Your task to perform on an android device: Open the stopwatch Image 0: 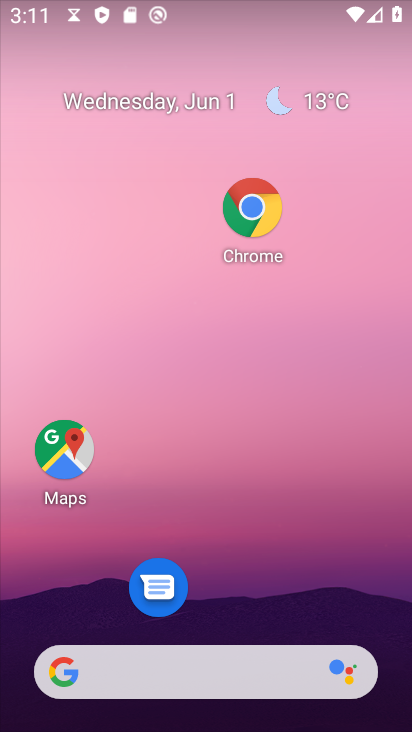
Step 0: drag from (254, 699) to (204, 243)
Your task to perform on an android device: Open the stopwatch Image 1: 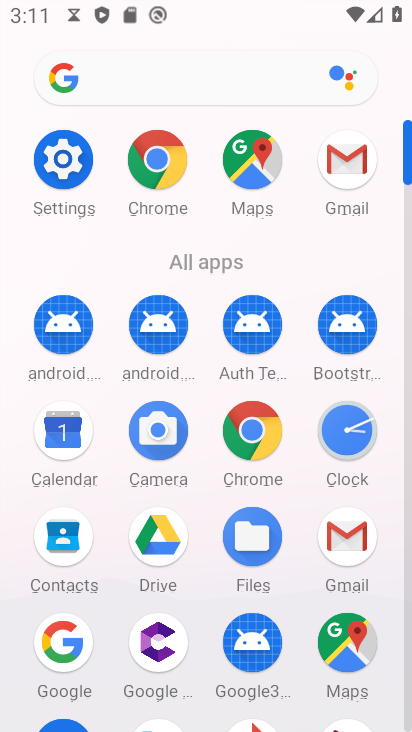
Step 1: click (353, 426)
Your task to perform on an android device: Open the stopwatch Image 2: 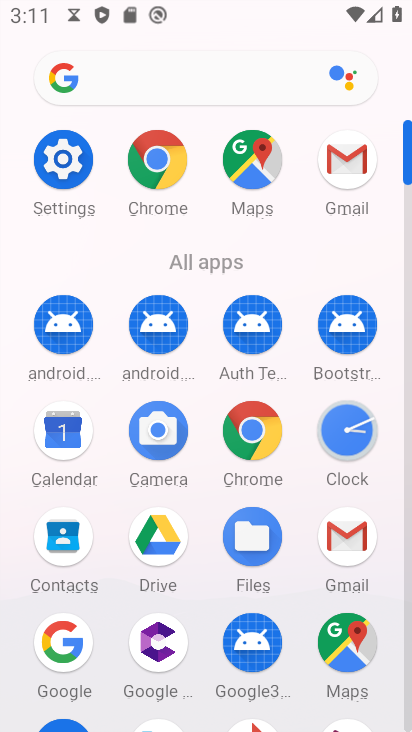
Step 2: click (352, 427)
Your task to perform on an android device: Open the stopwatch Image 3: 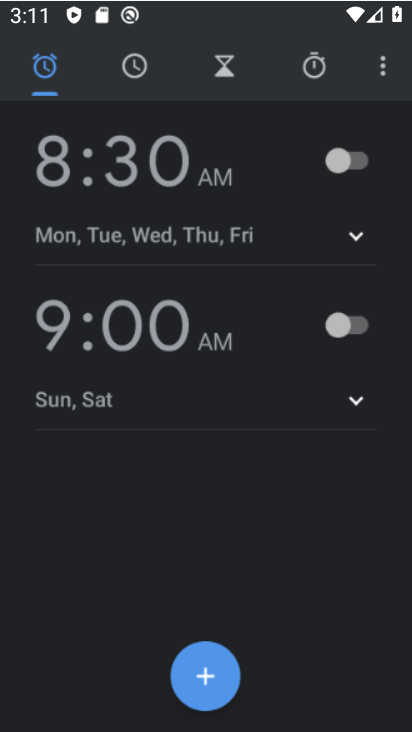
Step 3: click (352, 427)
Your task to perform on an android device: Open the stopwatch Image 4: 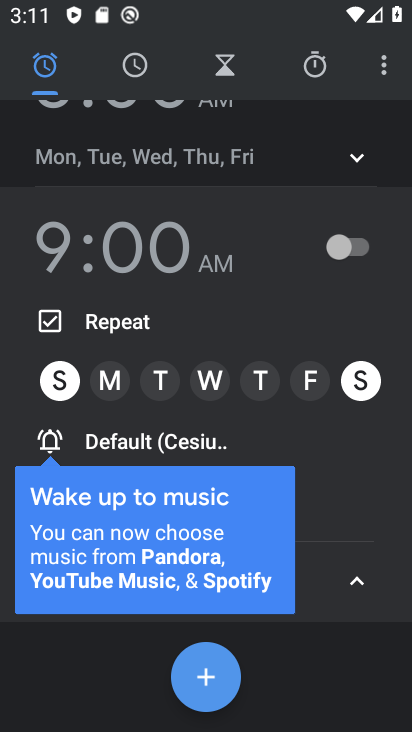
Step 4: click (319, 66)
Your task to perform on an android device: Open the stopwatch Image 5: 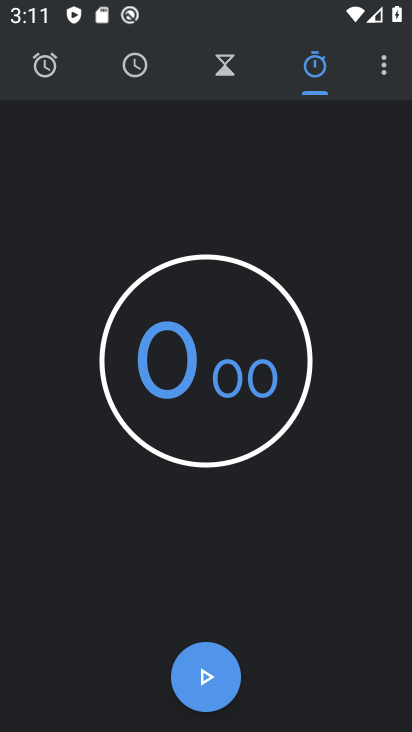
Step 5: click (198, 677)
Your task to perform on an android device: Open the stopwatch Image 6: 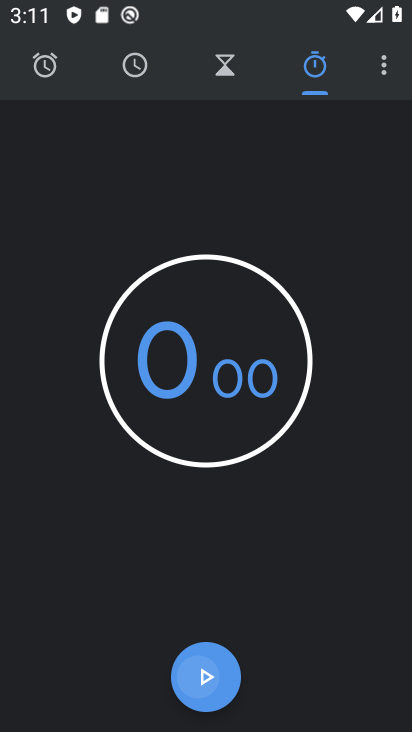
Step 6: click (198, 677)
Your task to perform on an android device: Open the stopwatch Image 7: 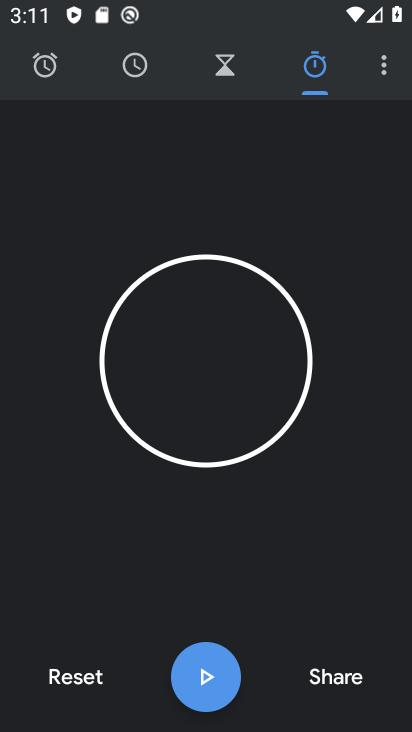
Step 7: click (198, 677)
Your task to perform on an android device: Open the stopwatch Image 8: 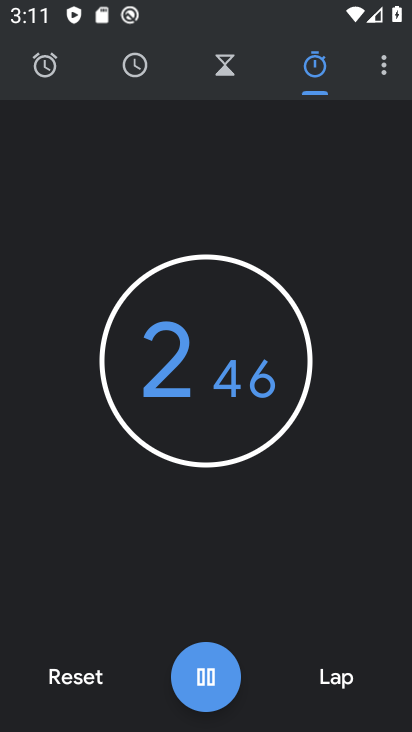
Step 8: click (203, 683)
Your task to perform on an android device: Open the stopwatch Image 9: 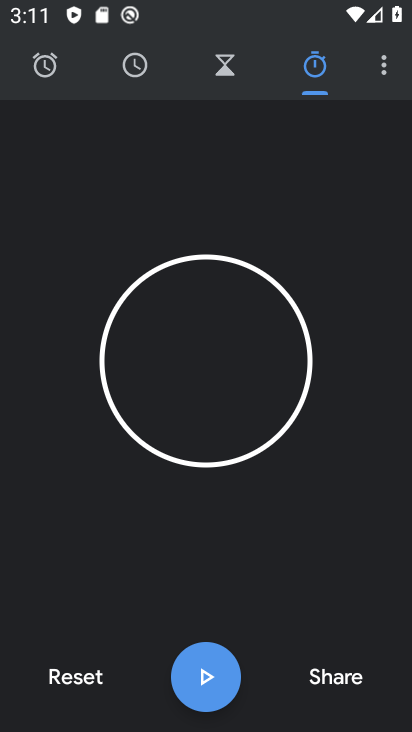
Step 9: task complete